Your task to perform on an android device: install app "Venmo" Image 0: 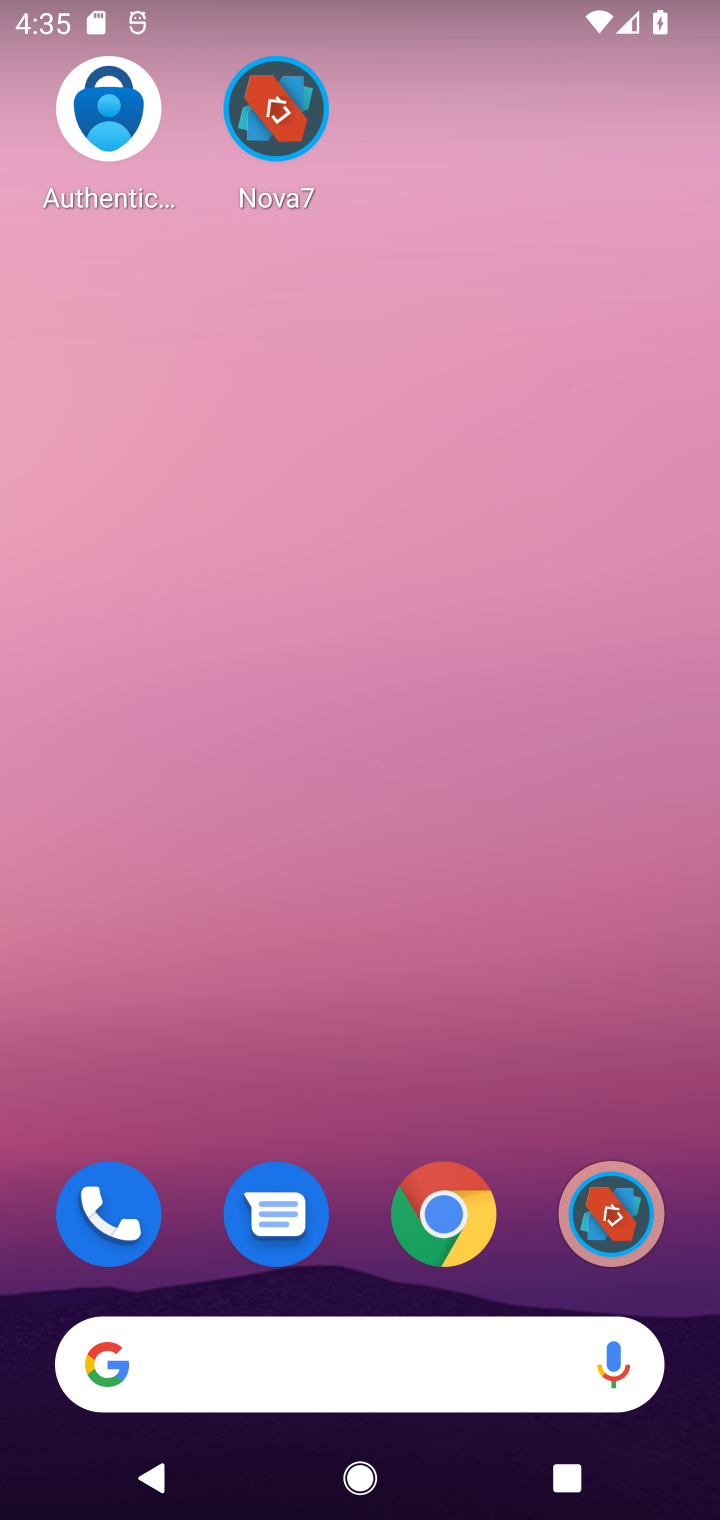
Step 0: drag from (353, 1256) to (439, 92)
Your task to perform on an android device: install app "Venmo" Image 1: 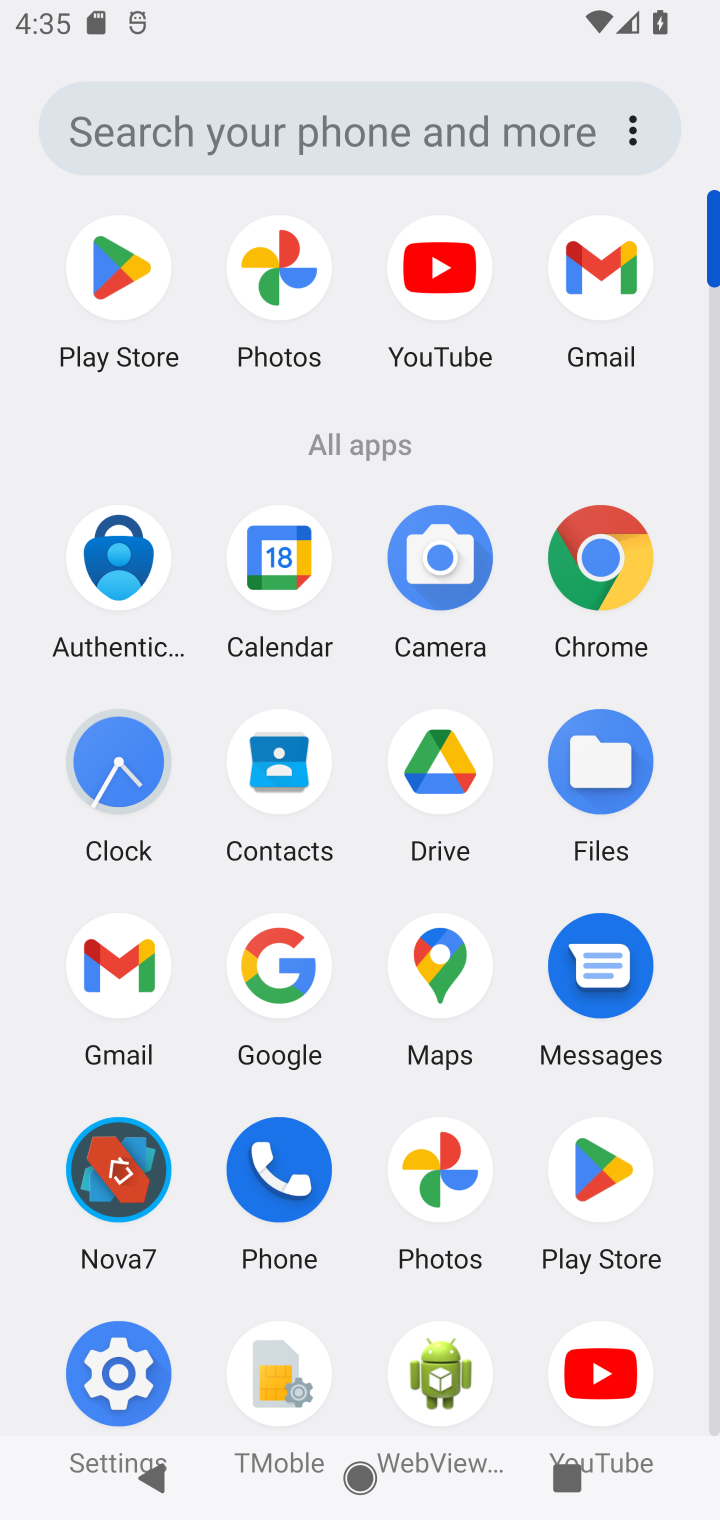
Step 1: click (109, 278)
Your task to perform on an android device: install app "Venmo" Image 2: 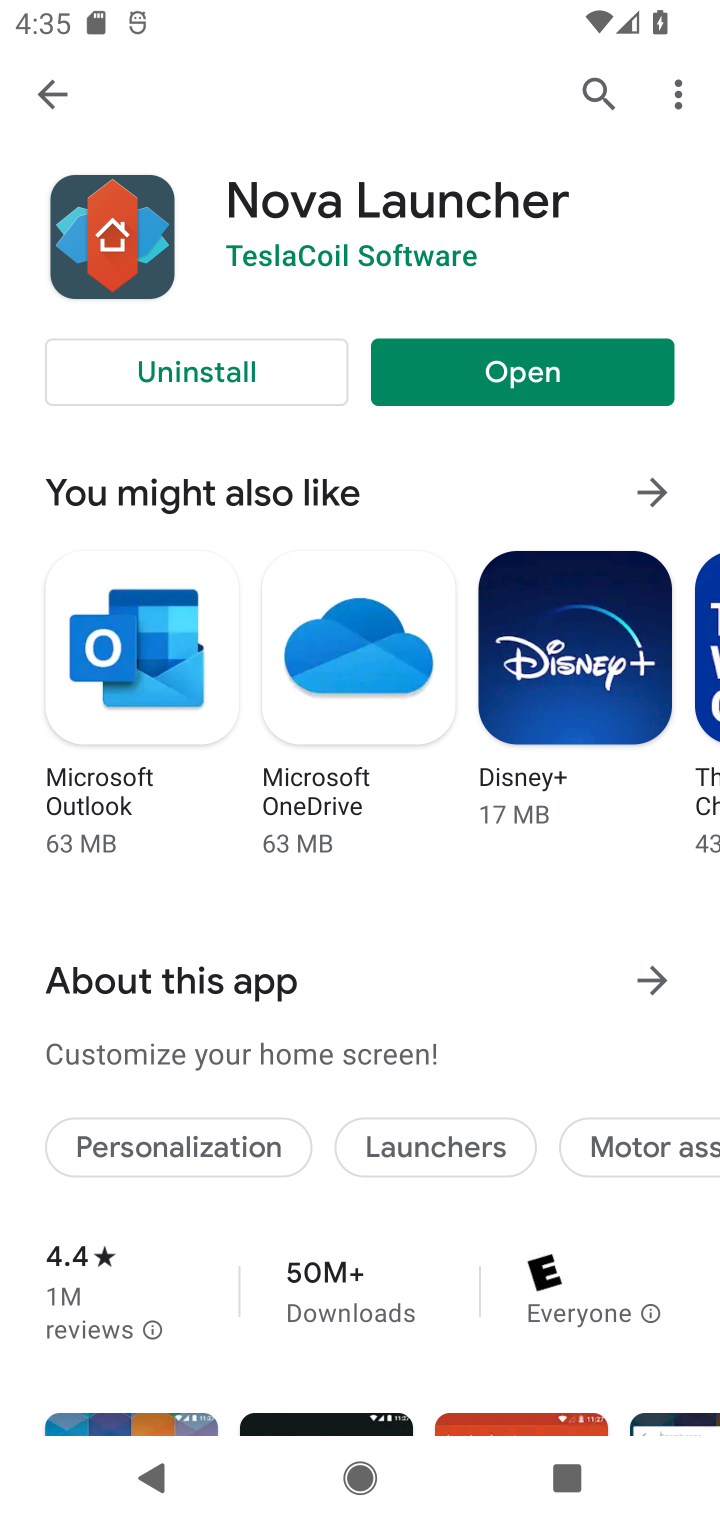
Step 2: click (41, 91)
Your task to perform on an android device: install app "Venmo" Image 3: 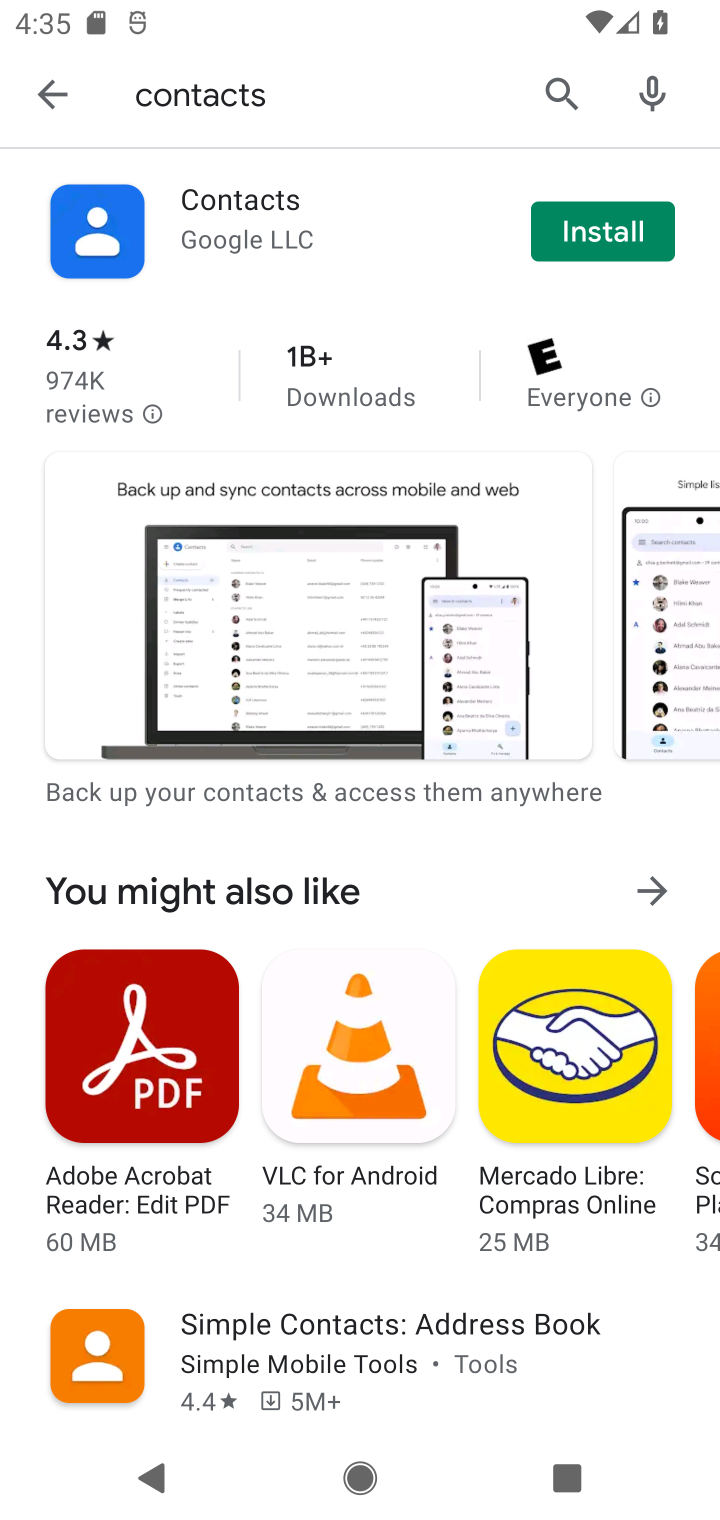
Step 3: click (309, 78)
Your task to perform on an android device: install app "Venmo" Image 4: 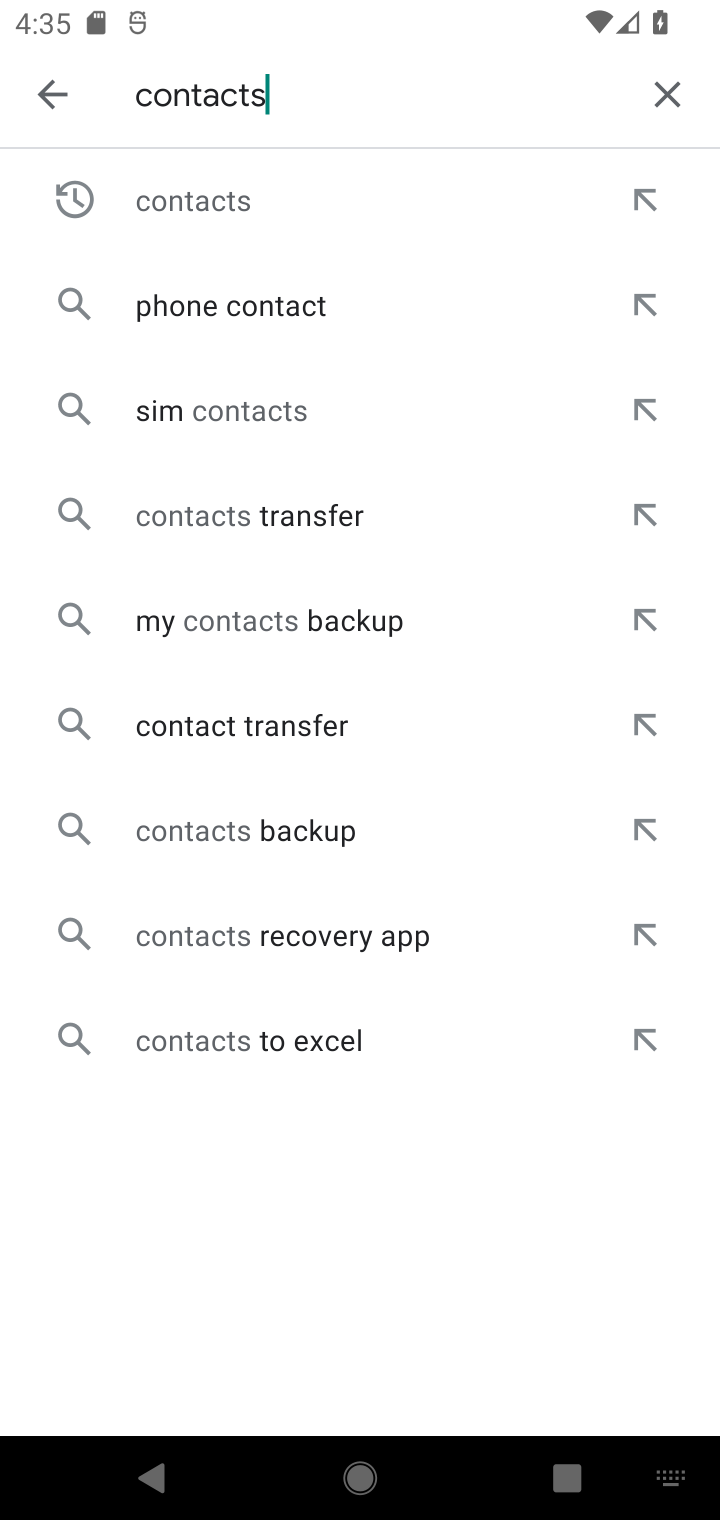
Step 4: click (638, 77)
Your task to perform on an android device: install app "Venmo" Image 5: 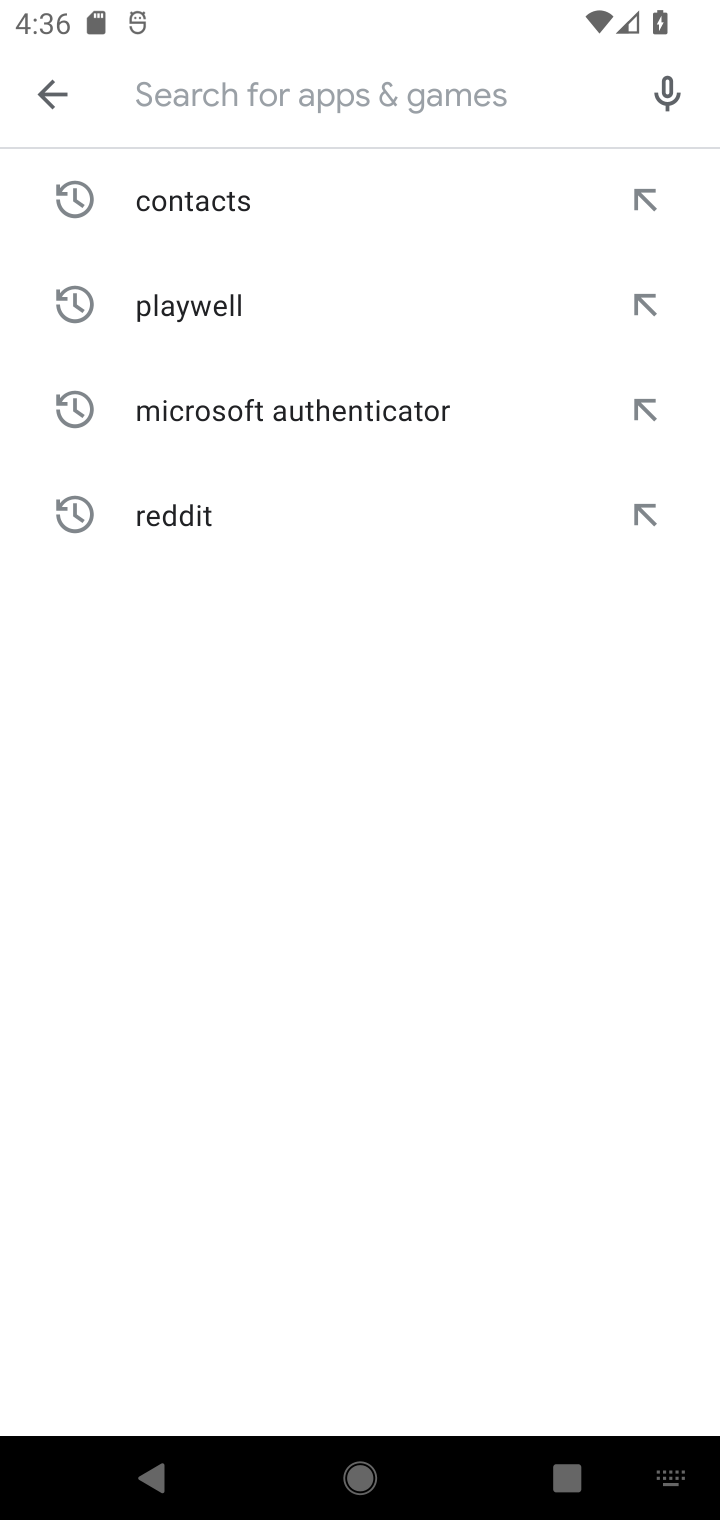
Step 5: type "venmo"
Your task to perform on an android device: install app "Venmo" Image 6: 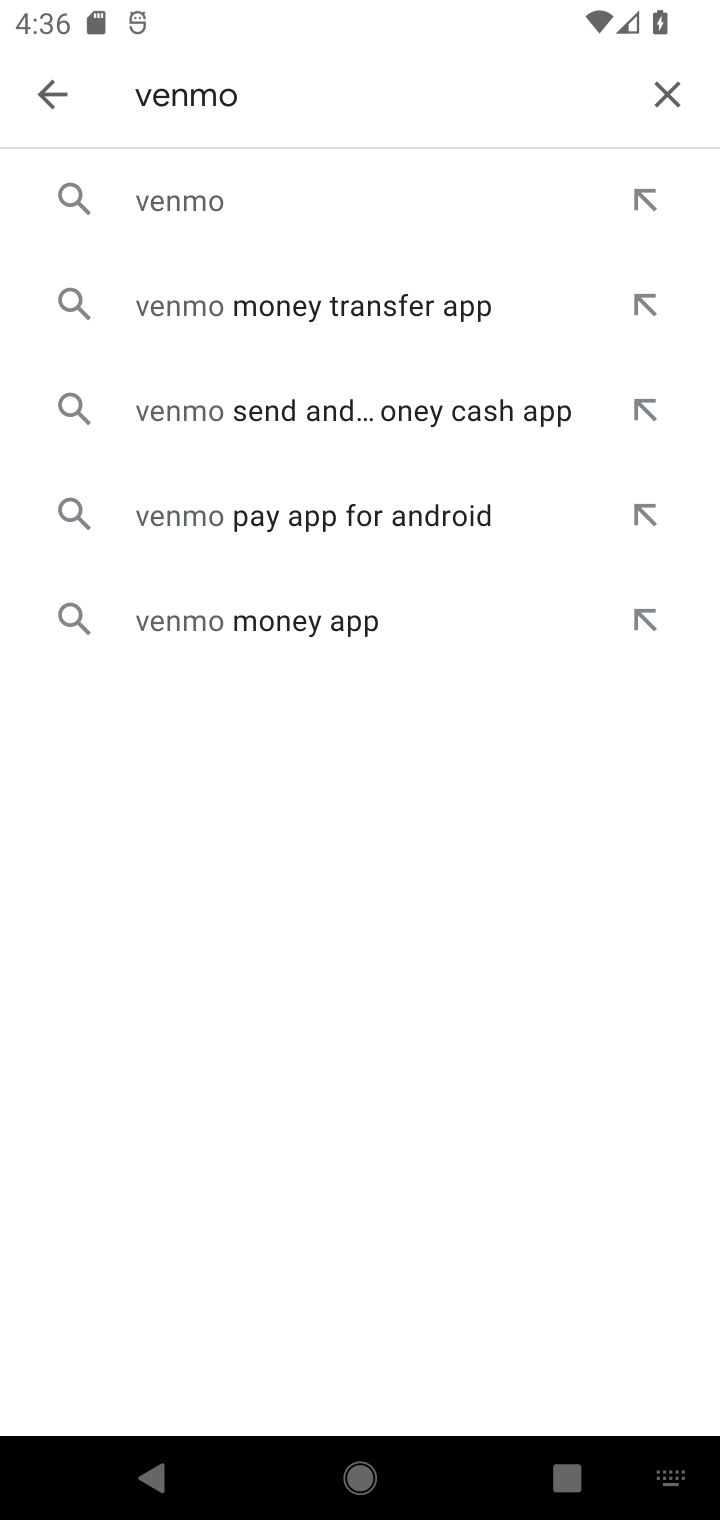
Step 6: click (229, 222)
Your task to perform on an android device: install app "Venmo" Image 7: 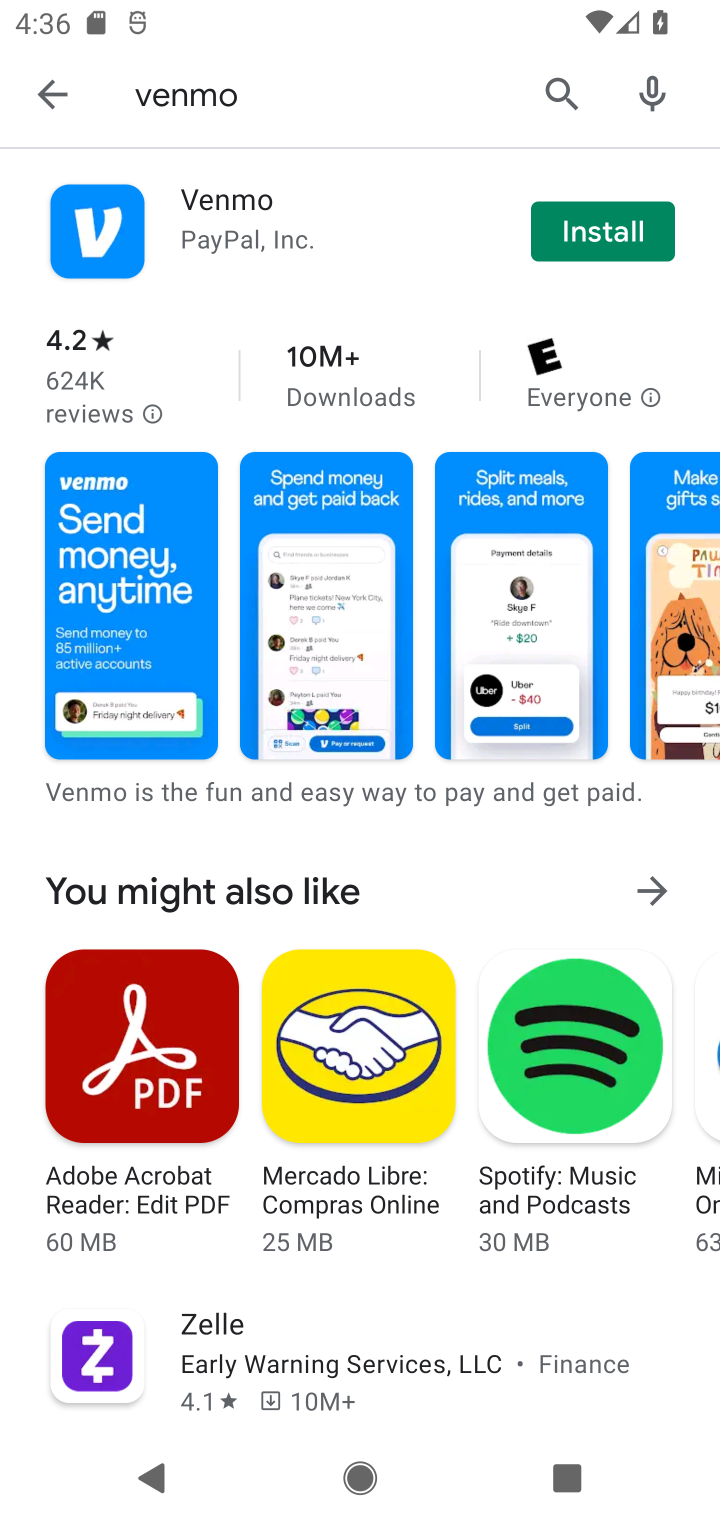
Step 7: click (640, 236)
Your task to perform on an android device: install app "Venmo" Image 8: 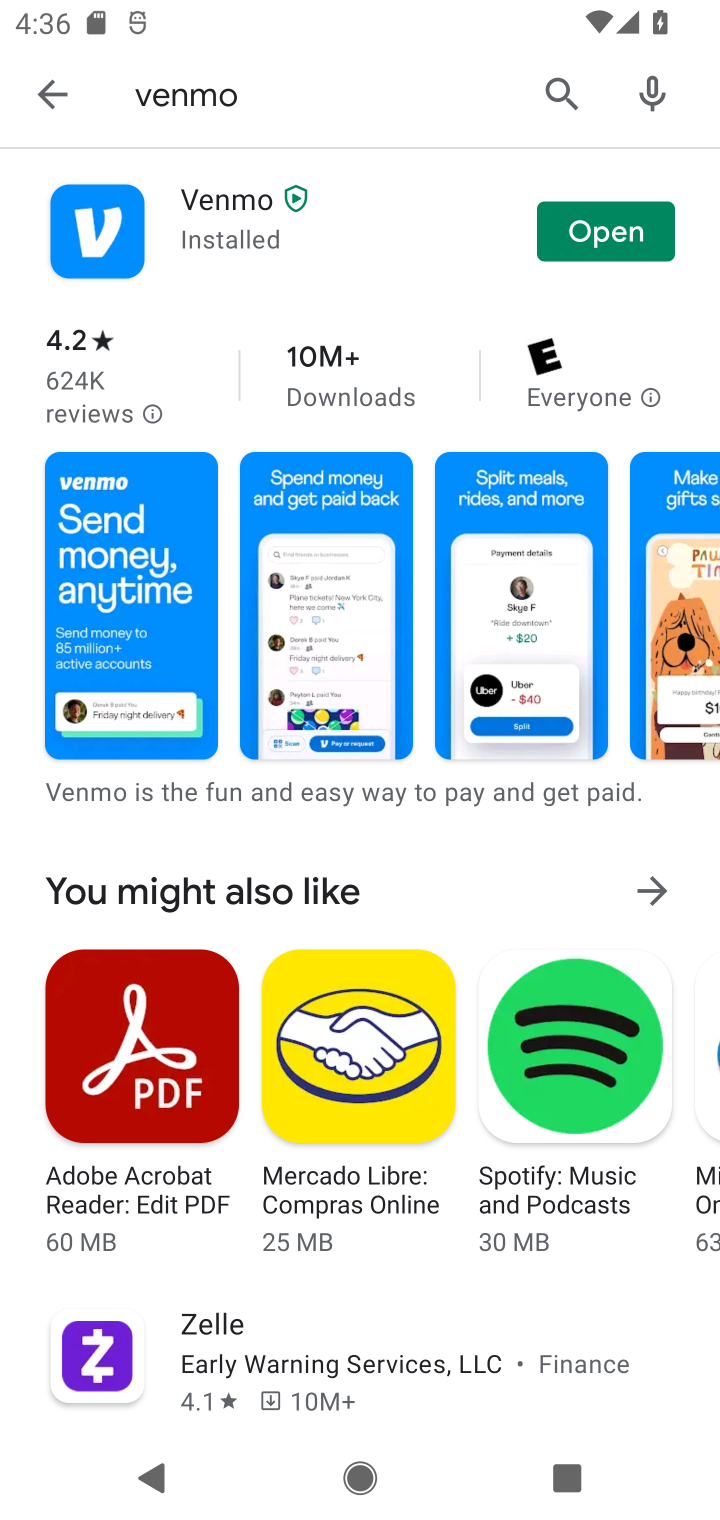
Step 8: task complete